Your task to perform on an android device: see sites visited before in the chrome app Image 0: 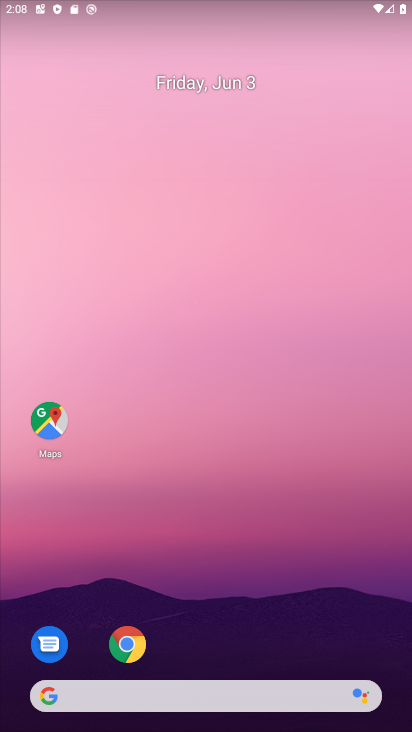
Step 0: click (138, 633)
Your task to perform on an android device: see sites visited before in the chrome app Image 1: 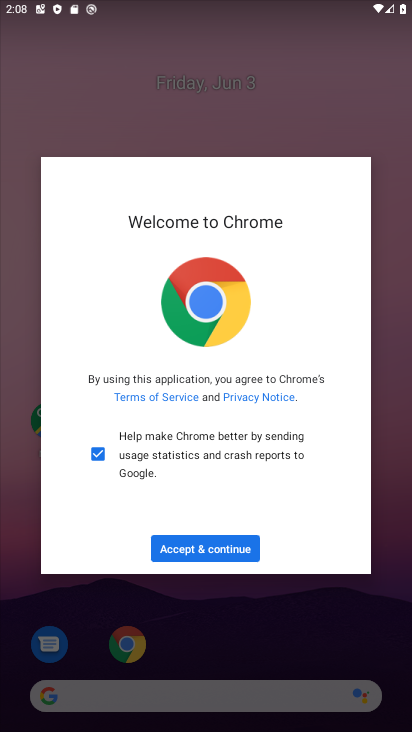
Step 1: click (251, 543)
Your task to perform on an android device: see sites visited before in the chrome app Image 2: 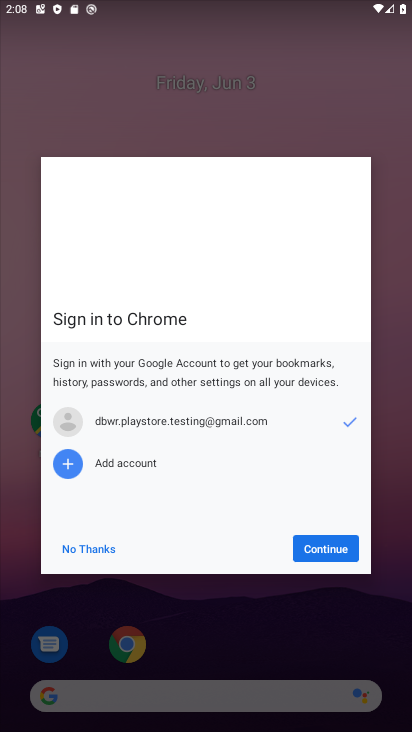
Step 2: click (308, 548)
Your task to perform on an android device: see sites visited before in the chrome app Image 3: 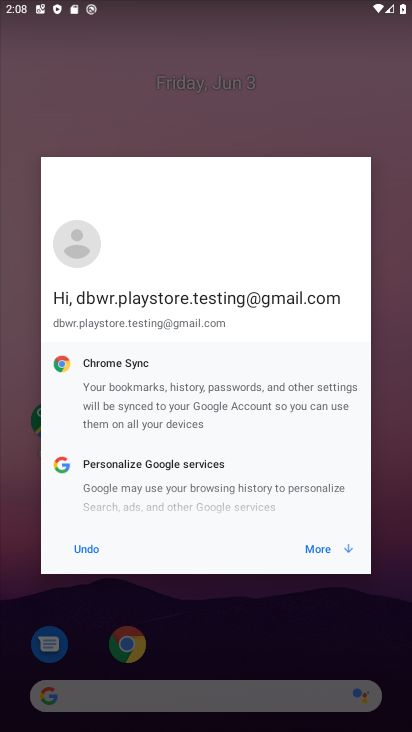
Step 3: click (312, 551)
Your task to perform on an android device: see sites visited before in the chrome app Image 4: 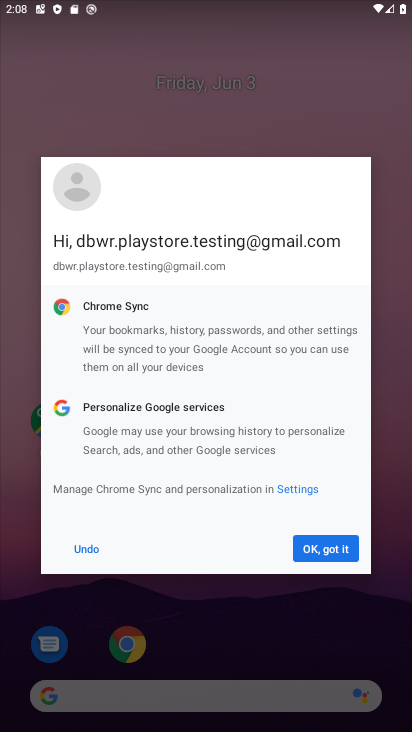
Step 4: click (312, 551)
Your task to perform on an android device: see sites visited before in the chrome app Image 5: 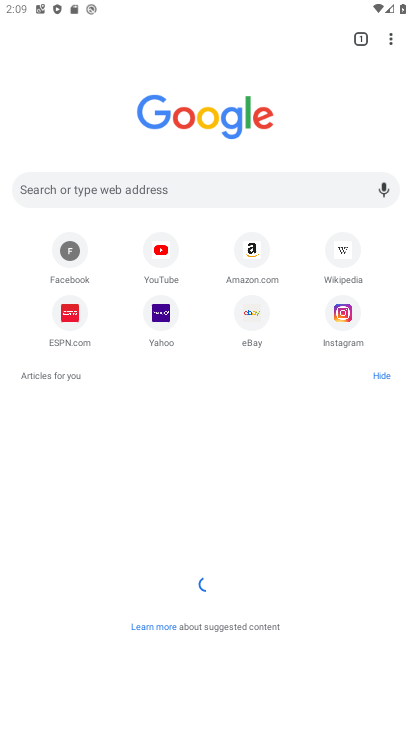
Step 5: click (382, 38)
Your task to perform on an android device: see sites visited before in the chrome app Image 6: 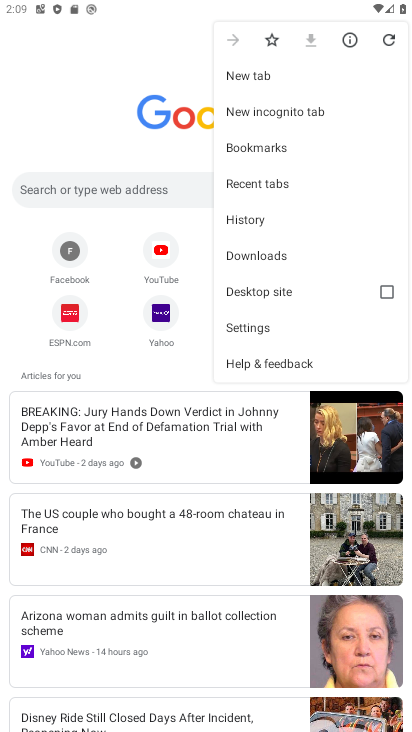
Step 6: click (280, 188)
Your task to perform on an android device: see sites visited before in the chrome app Image 7: 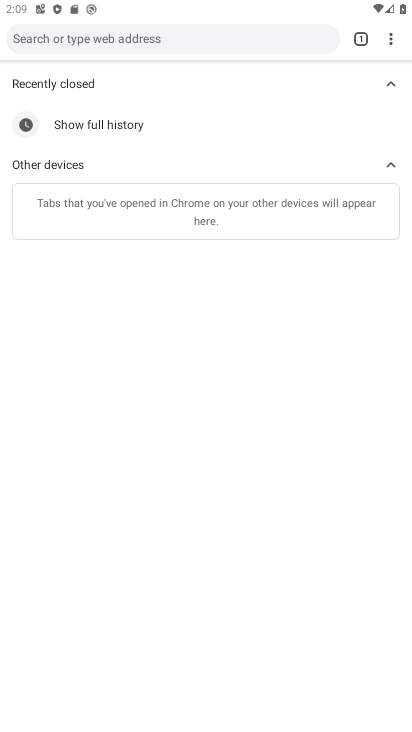
Step 7: task complete